Your task to perform on an android device: toggle javascript in the chrome app Image 0: 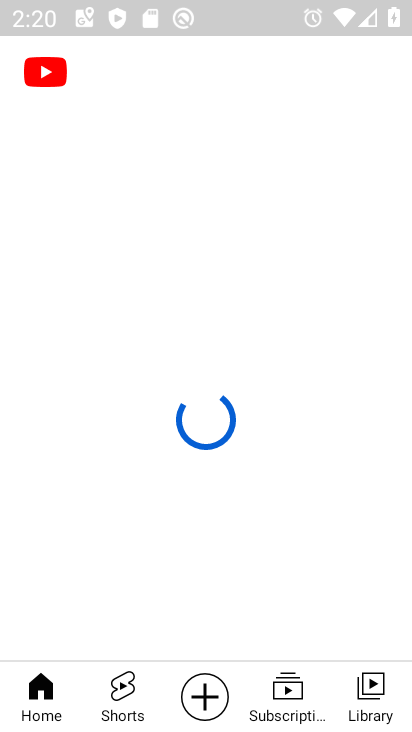
Step 0: press home button
Your task to perform on an android device: toggle javascript in the chrome app Image 1: 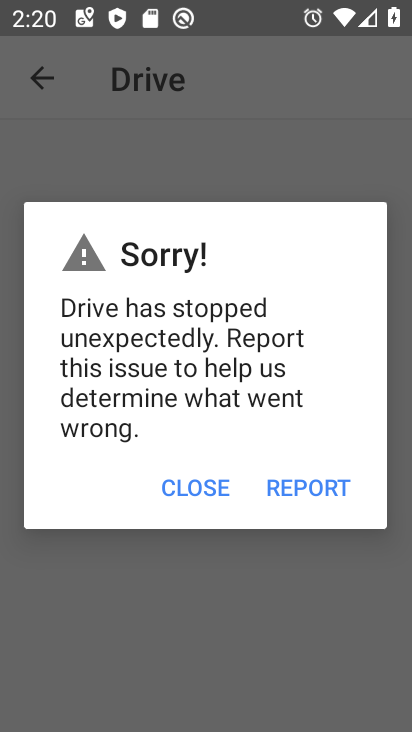
Step 1: click (363, 253)
Your task to perform on an android device: toggle javascript in the chrome app Image 2: 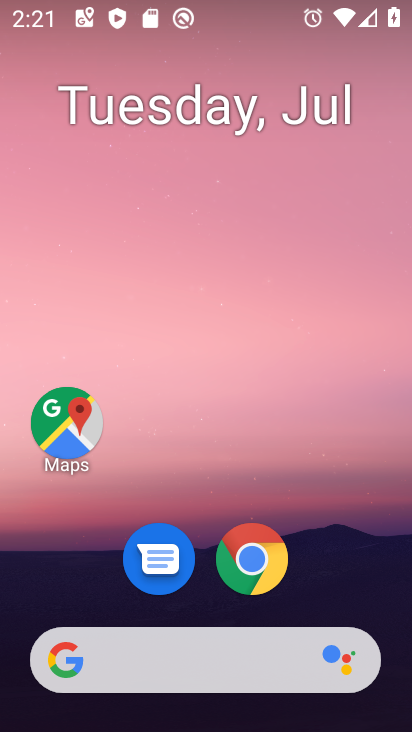
Step 2: drag from (361, 592) to (367, 163)
Your task to perform on an android device: toggle javascript in the chrome app Image 3: 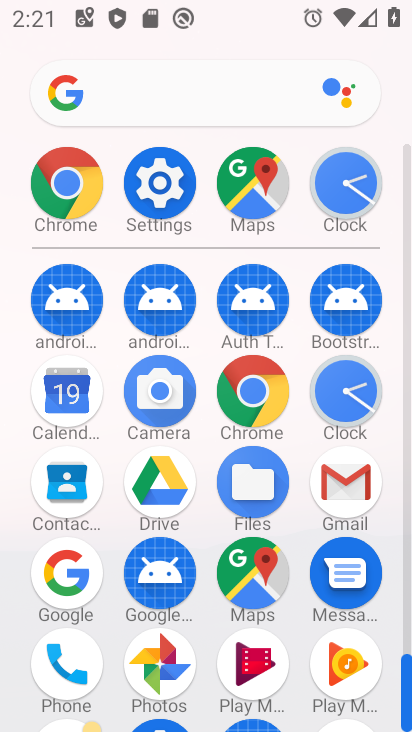
Step 3: click (264, 384)
Your task to perform on an android device: toggle javascript in the chrome app Image 4: 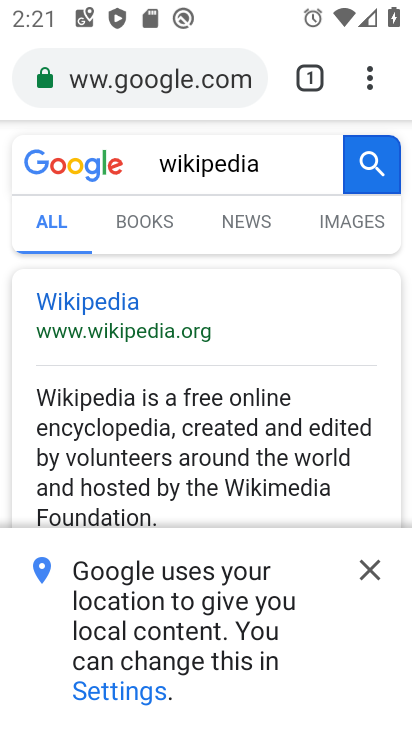
Step 4: click (367, 85)
Your task to perform on an android device: toggle javascript in the chrome app Image 5: 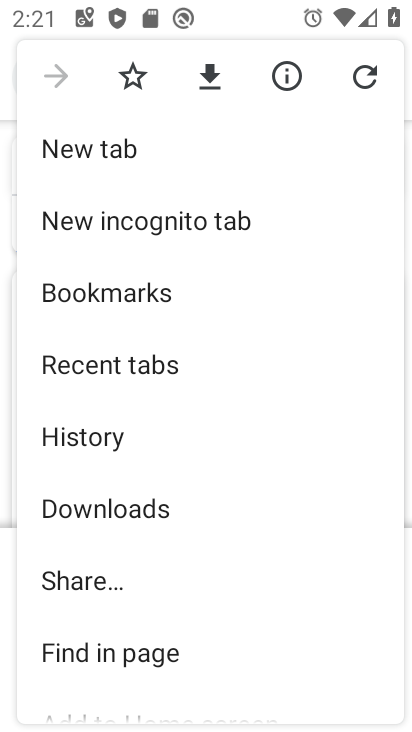
Step 5: drag from (310, 608) to (311, 544)
Your task to perform on an android device: toggle javascript in the chrome app Image 6: 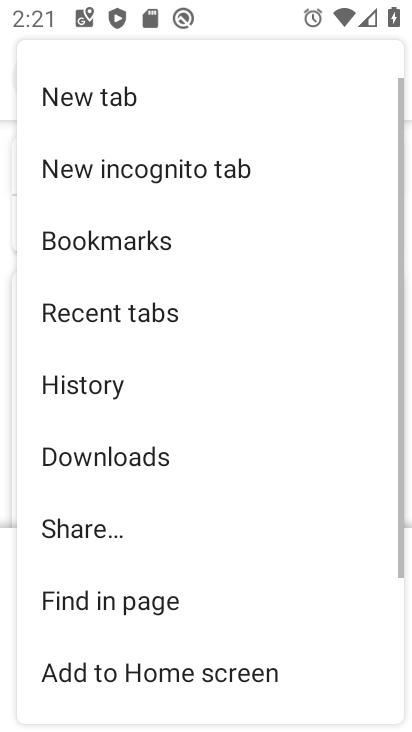
Step 6: drag from (316, 604) to (320, 497)
Your task to perform on an android device: toggle javascript in the chrome app Image 7: 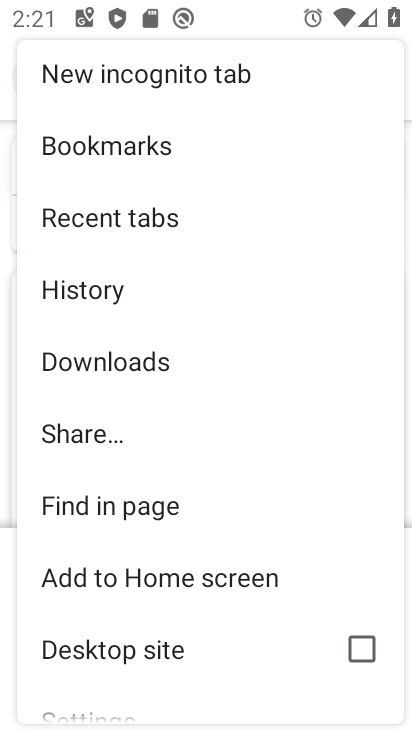
Step 7: drag from (305, 589) to (308, 484)
Your task to perform on an android device: toggle javascript in the chrome app Image 8: 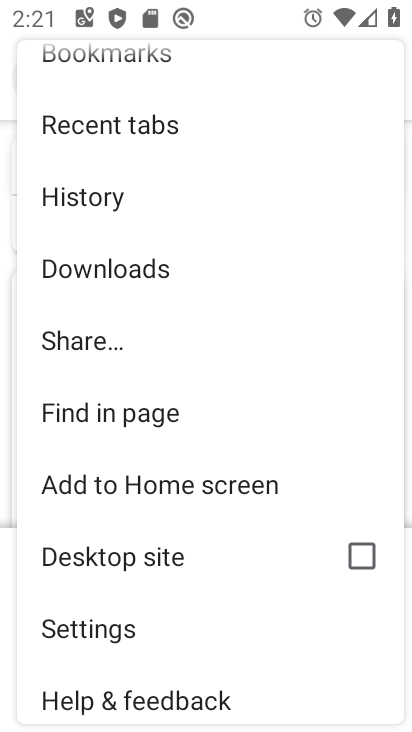
Step 8: drag from (280, 603) to (288, 502)
Your task to perform on an android device: toggle javascript in the chrome app Image 9: 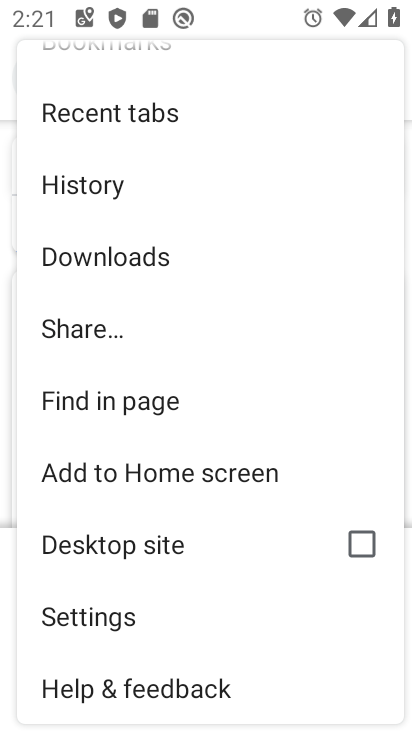
Step 9: click (245, 606)
Your task to perform on an android device: toggle javascript in the chrome app Image 10: 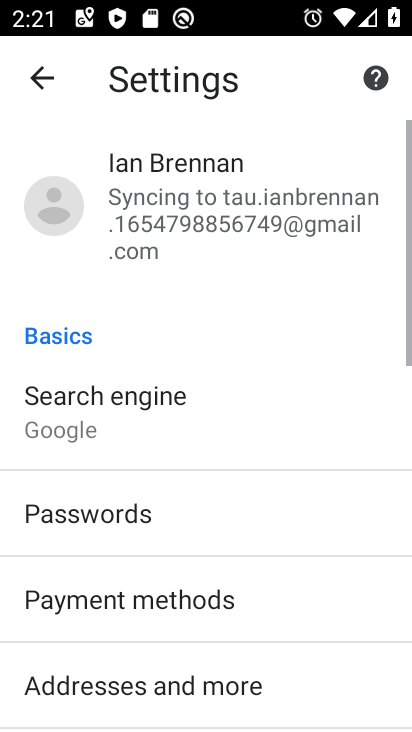
Step 10: drag from (264, 602) to (276, 536)
Your task to perform on an android device: toggle javascript in the chrome app Image 11: 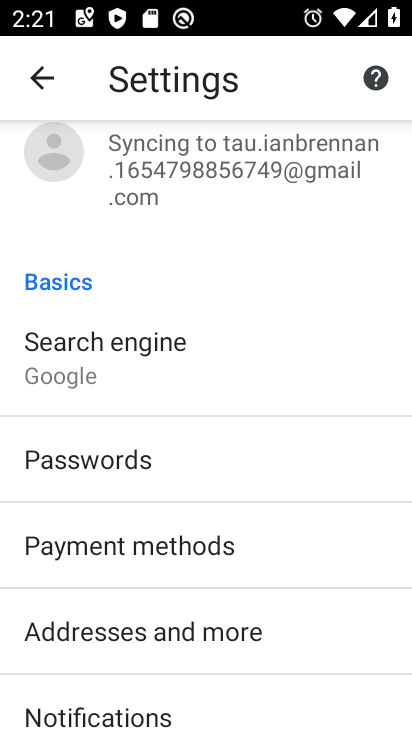
Step 11: drag from (304, 609) to (305, 522)
Your task to perform on an android device: toggle javascript in the chrome app Image 12: 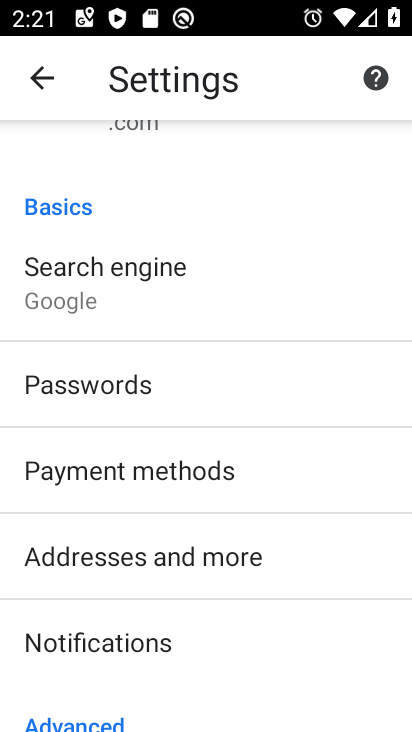
Step 12: drag from (314, 611) to (314, 529)
Your task to perform on an android device: toggle javascript in the chrome app Image 13: 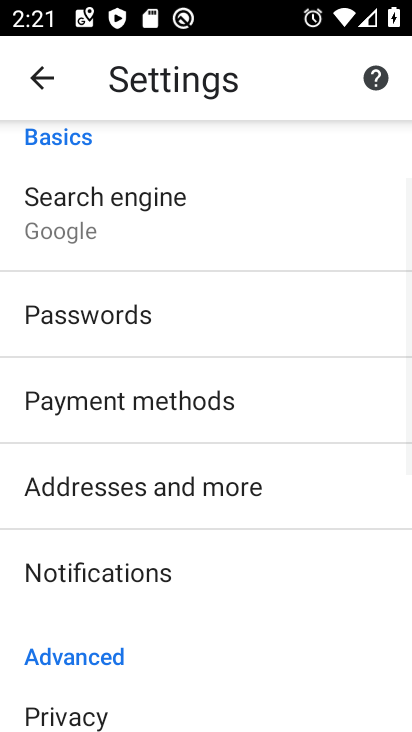
Step 13: drag from (322, 612) to (319, 534)
Your task to perform on an android device: toggle javascript in the chrome app Image 14: 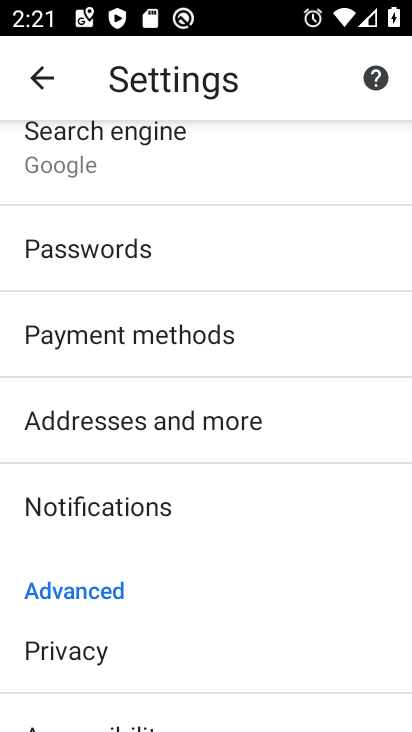
Step 14: drag from (318, 614) to (322, 513)
Your task to perform on an android device: toggle javascript in the chrome app Image 15: 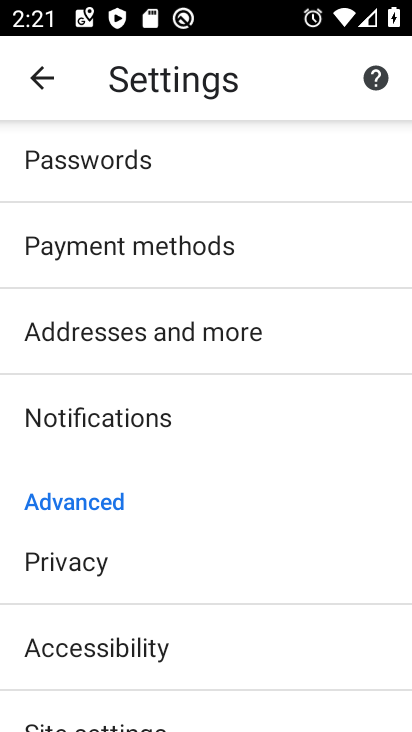
Step 15: drag from (286, 629) to (310, 502)
Your task to perform on an android device: toggle javascript in the chrome app Image 16: 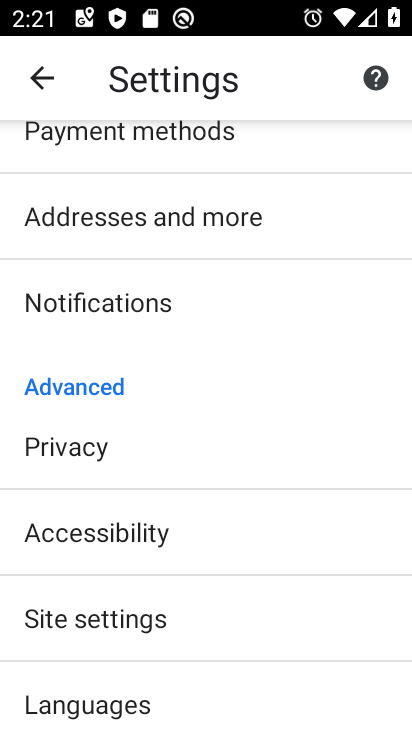
Step 16: click (304, 618)
Your task to perform on an android device: toggle javascript in the chrome app Image 17: 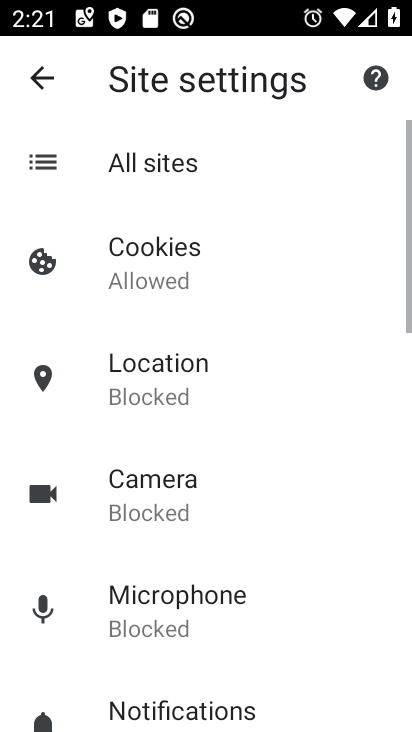
Step 17: drag from (304, 618) to (319, 530)
Your task to perform on an android device: toggle javascript in the chrome app Image 18: 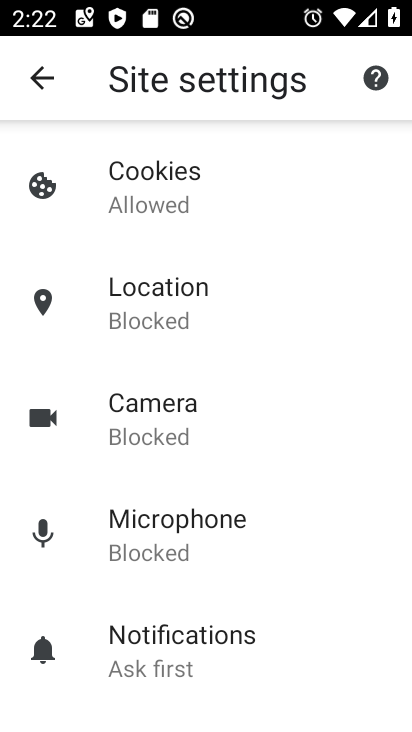
Step 18: drag from (334, 606) to (341, 478)
Your task to perform on an android device: toggle javascript in the chrome app Image 19: 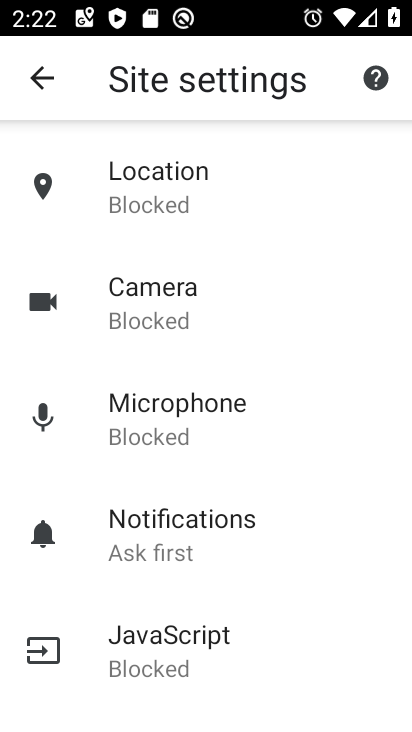
Step 19: drag from (326, 569) to (327, 393)
Your task to perform on an android device: toggle javascript in the chrome app Image 20: 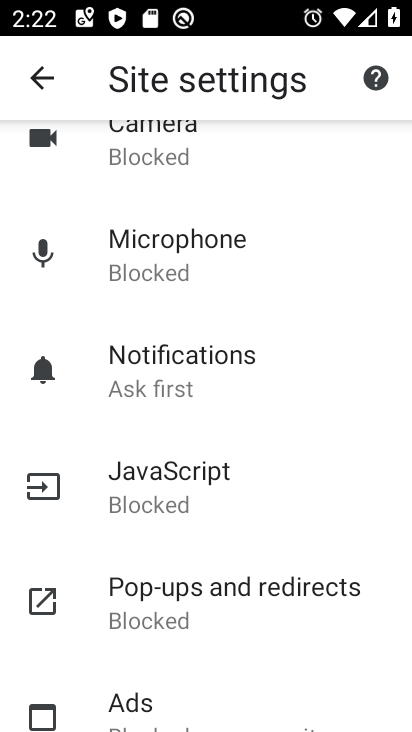
Step 20: click (315, 489)
Your task to perform on an android device: toggle javascript in the chrome app Image 21: 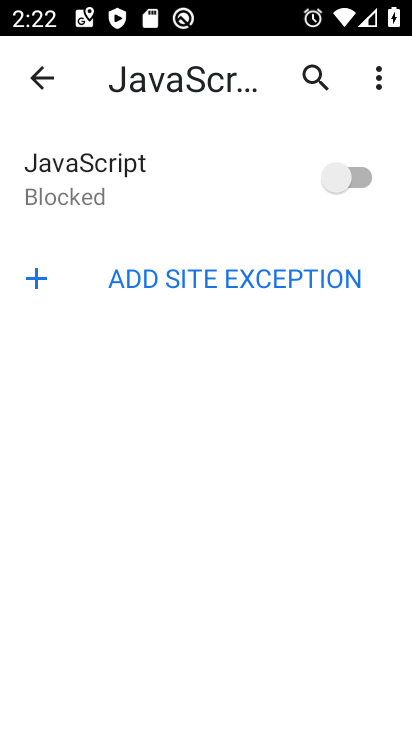
Step 21: click (341, 182)
Your task to perform on an android device: toggle javascript in the chrome app Image 22: 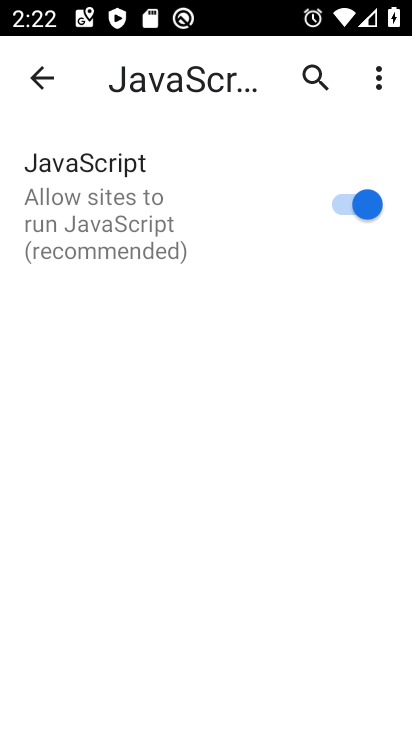
Step 22: task complete